Your task to perform on an android device: Go to battery settings Image 0: 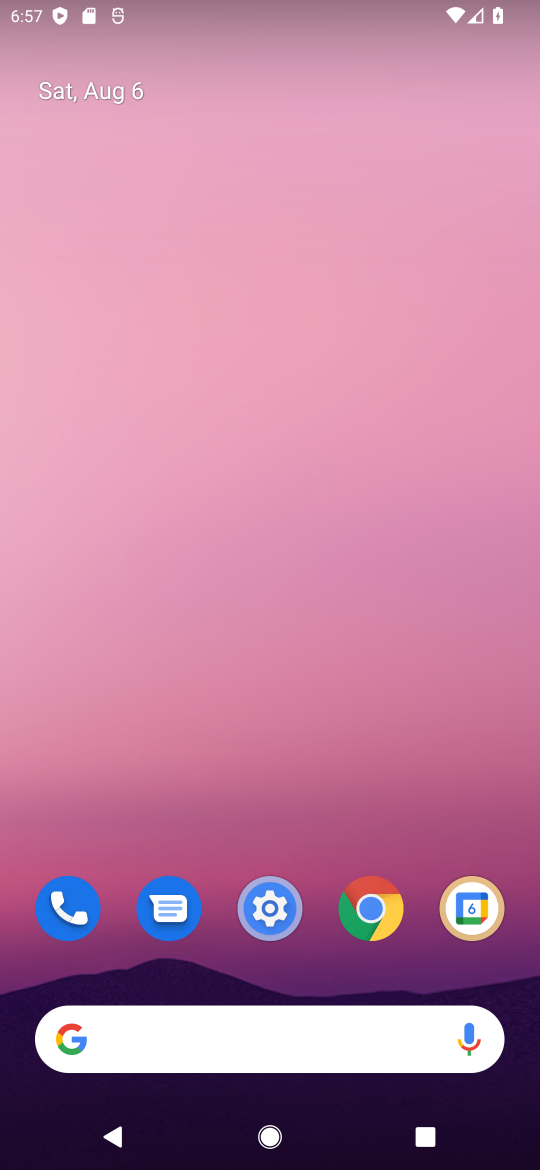
Step 0: click (269, 899)
Your task to perform on an android device: Go to battery settings Image 1: 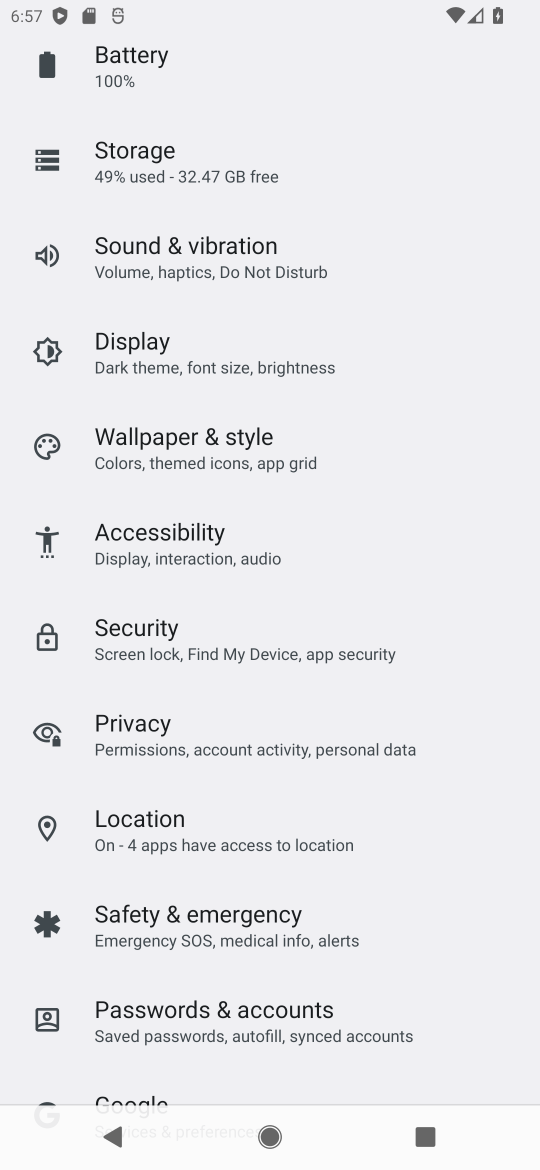
Step 1: click (119, 79)
Your task to perform on an android device: Go to battery settings Image 2: 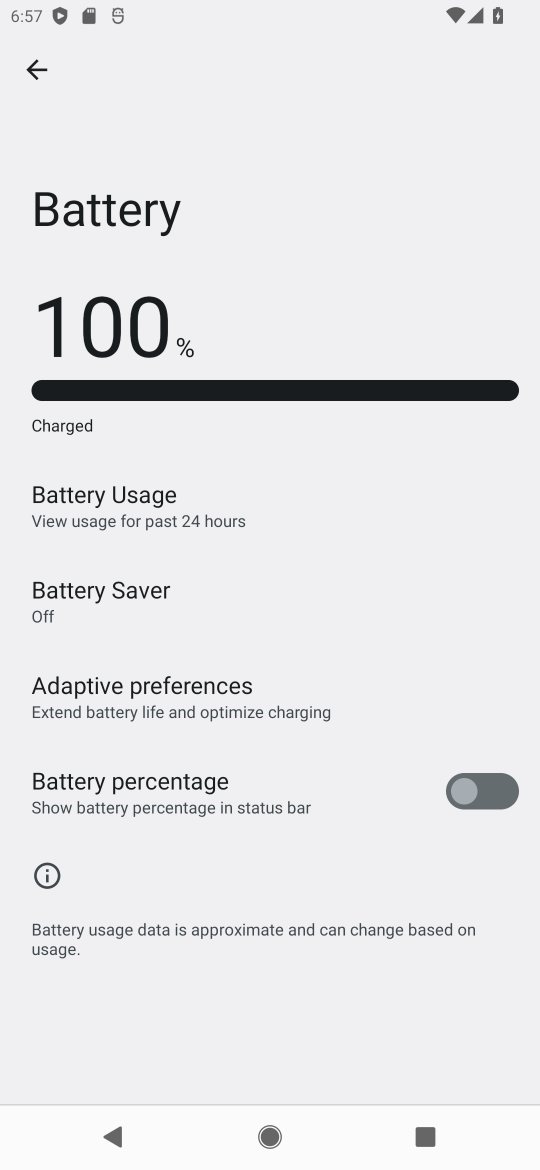
Step 2: task complete